Your task to perform on an android device: toggle show notifications on the lock screen Image 0: 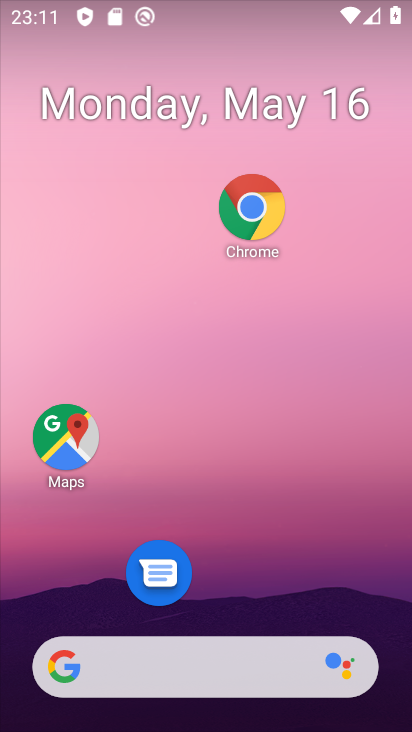
Step 0: drag from (277, 657) to (326, 64)
Your task to perform on an android device: toggle show notifications on the lock screen Image 1: 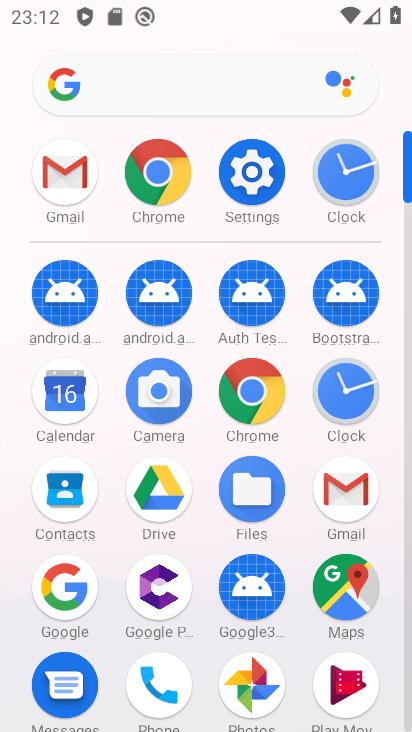
Step 1: click (279, 191)
Your task to perform on an android device: toggle show notifications on the lock screen Image 2: 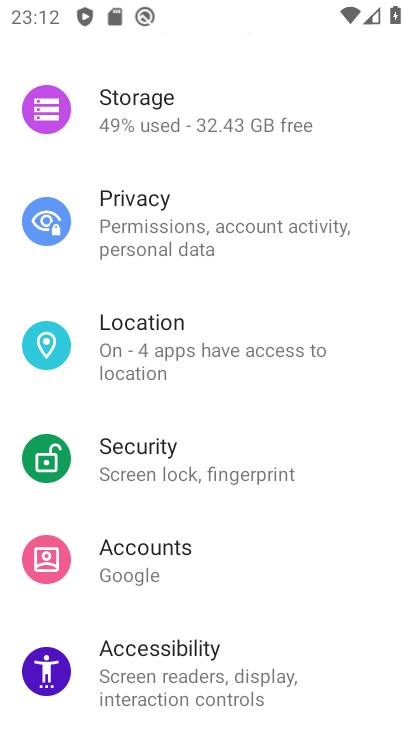
Step 2: drag from (268, 208) to (282, 670)
Your task to perform on an android device: toggle show notifications on the lock screen Image 3: 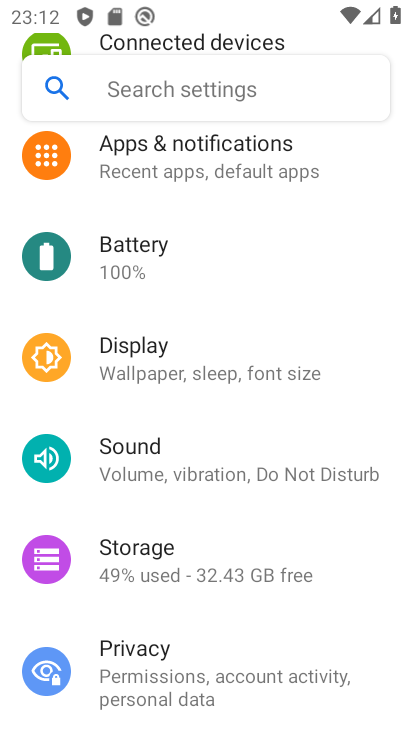
Step 3: click (212, 164)
Your task to perform on an android device: toggle show notifications on the lock screen Image 4: 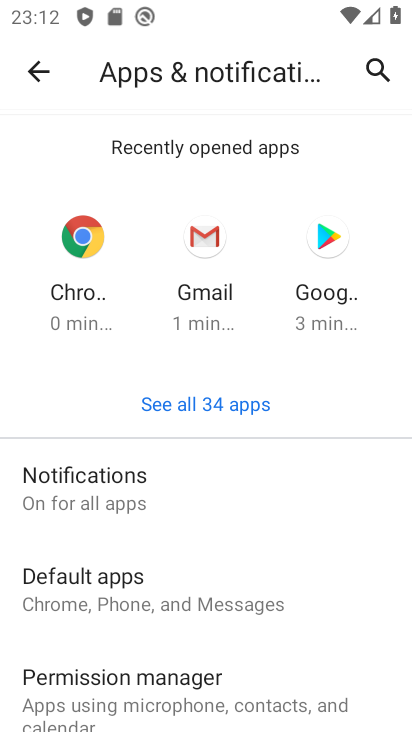
Step 4: click (160, 487)
Your task to perform on an android device: toggle show notifications on the lock screen Image 5: 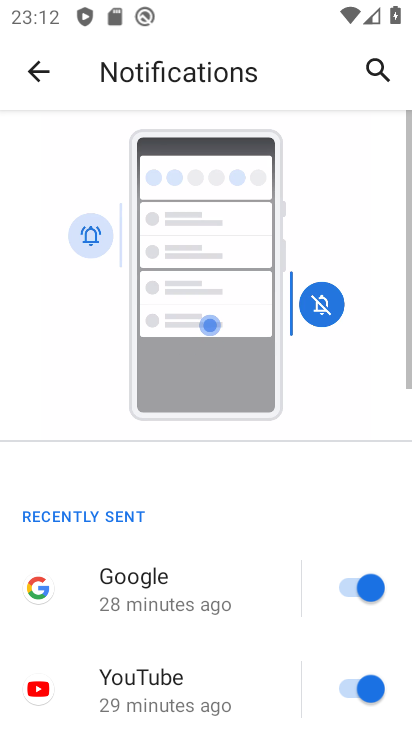
Step 5: drag from (192, 556) to (184, 194)
Your task to perform on an android device: toggle show notifications on the lock screen Image 6: 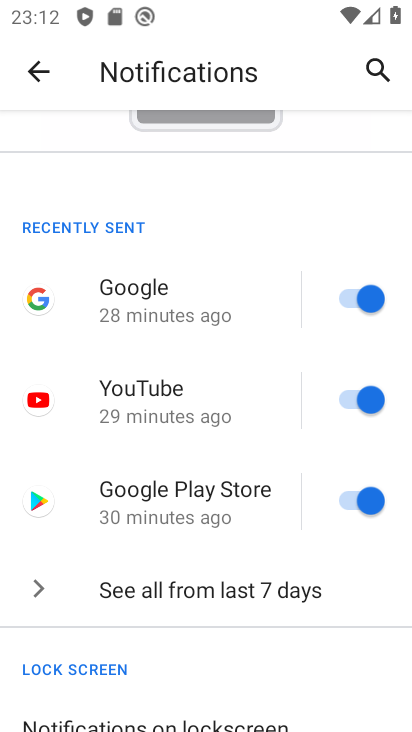
Step 6: drag from (222, 613) to (244, 348)
Your task to perform on an android device: toggle show notifications on the lock screen Image 7: 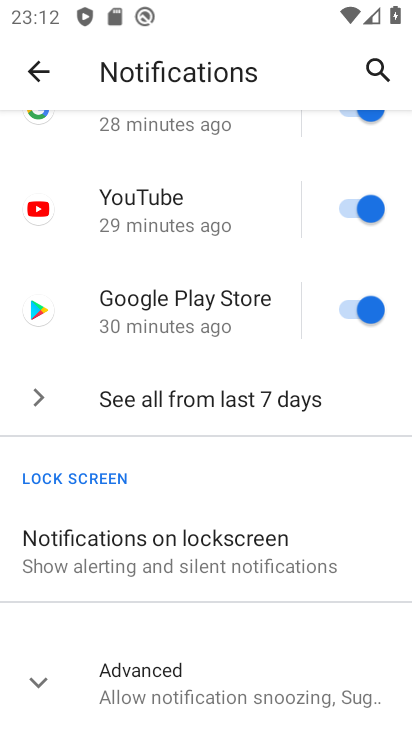
Step 7: click (234, 548)
Your task to perform on an android device: toggle show notifications on the lock screen Image 8: 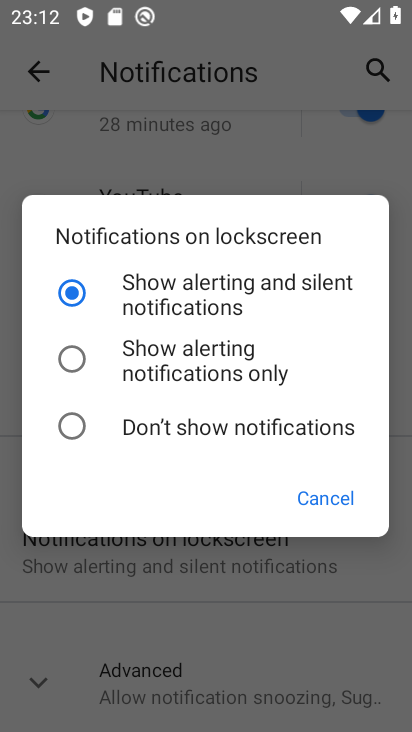
Step 8: click (241, 359)
Your task to perform on an android device: toggle show notifications on the lock screen Image 9: 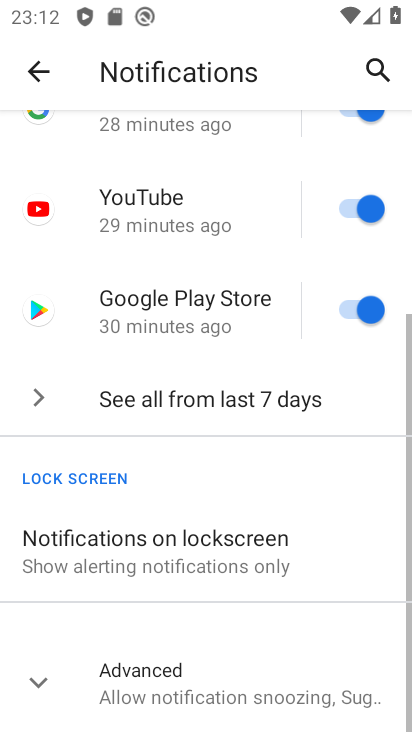
Step 9: task complete